Your task to perform on an android device: move an email to a new category in the gmail app Image 0: 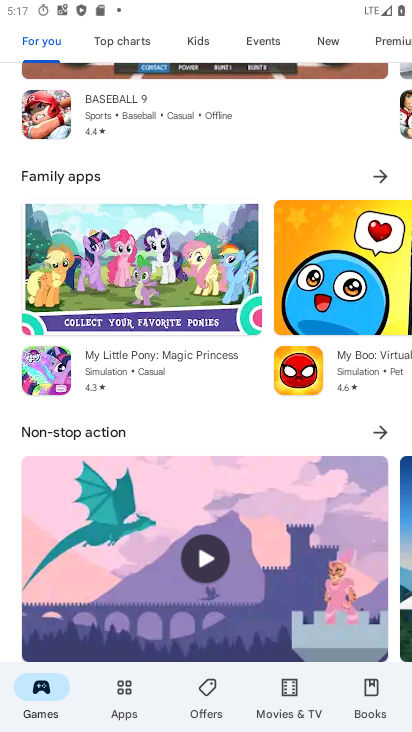
Step 0: press home button
Your task to perform on an android device: move an email to a new category in the gmail app Image 1: 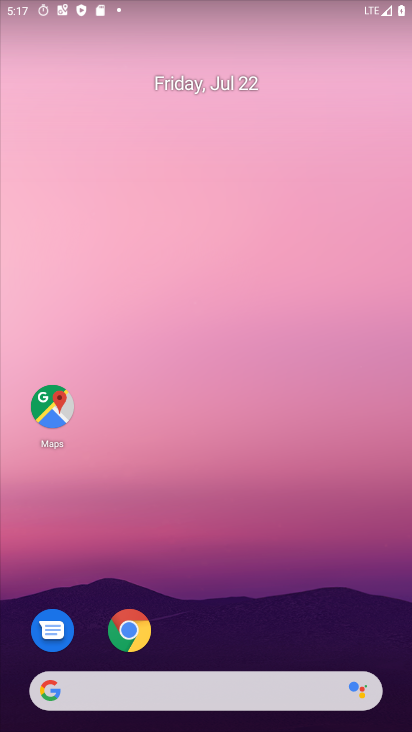
Step 1: drag from (204, 639) to (411, 523)
Your task to perform on an android device: move an email to a new category in the gmail app Image 2: 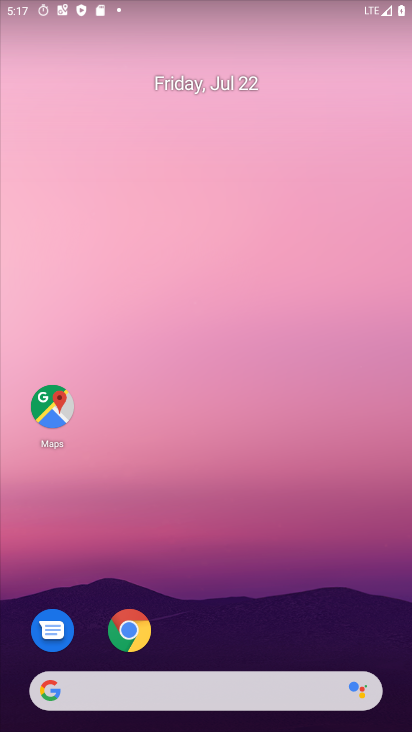
Step 2: click (131, 457)
Your task to perform on an android device: move an email to a new category in the gmail app Image 3: 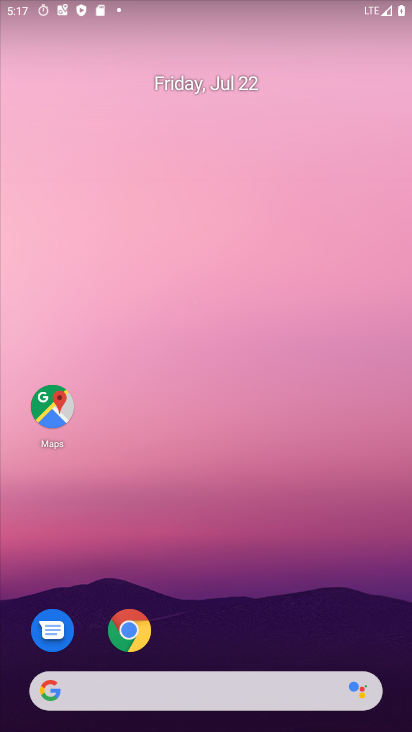
Step 3: drag from (169, 585) to (176, 85)
Your task to perform on an android device: move an email to a new category in the gmail app Image 4: 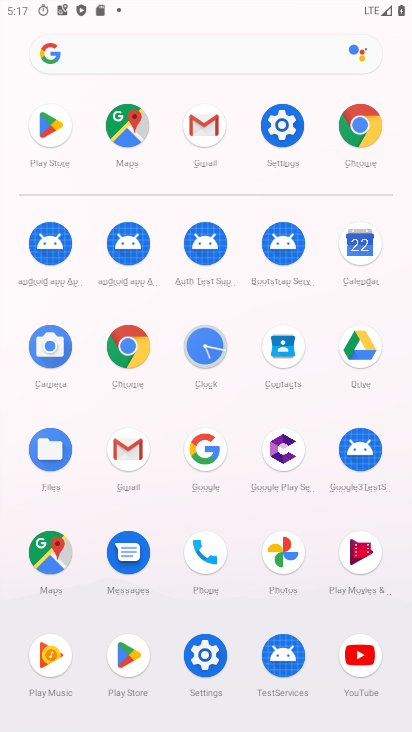
Step 4: click (131, 447)
Your task to perform on an android device: move an email to a new category in the gmail app Image 5: 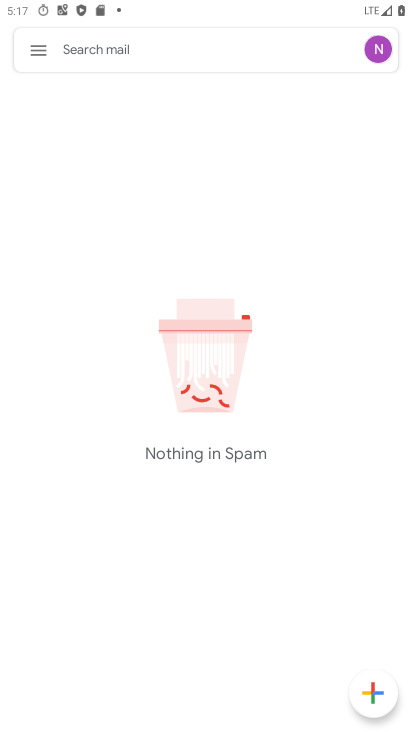
Step 5: click (46, 50)
Your task to perform on an android device: move an email to a new category in the gmail app Image 6: 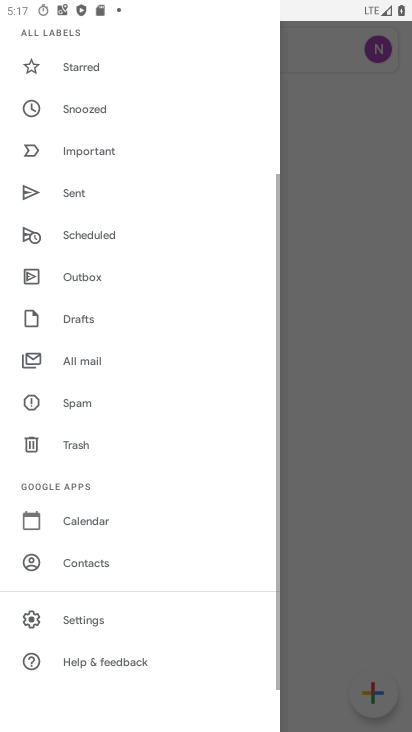
Step 6: click (115, 632)
Your task to perform on an android device: move an email to a new category in the gmail app Image 7: 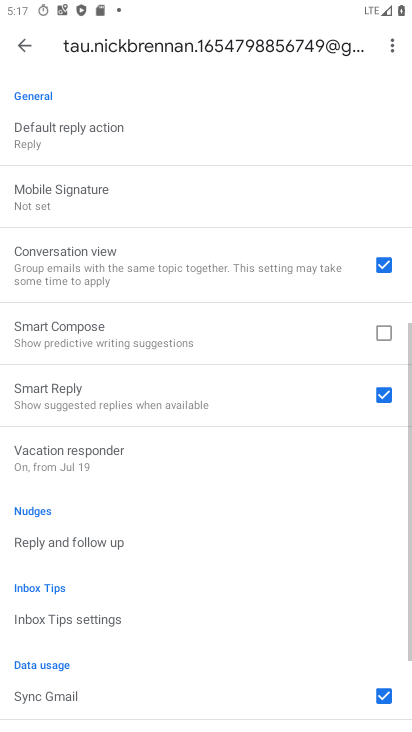
Step 7: task complete